Your task to perform on an android device: Open Reddit.com Image 0: 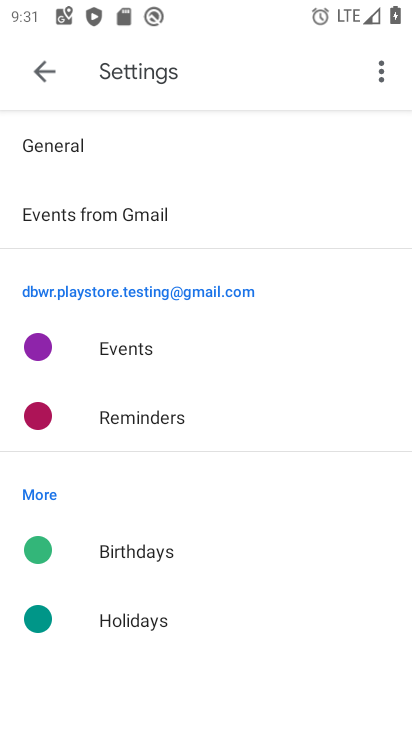
Step 0: press home button
Your task to perform on an android device: Open Reddit.com Image 1: 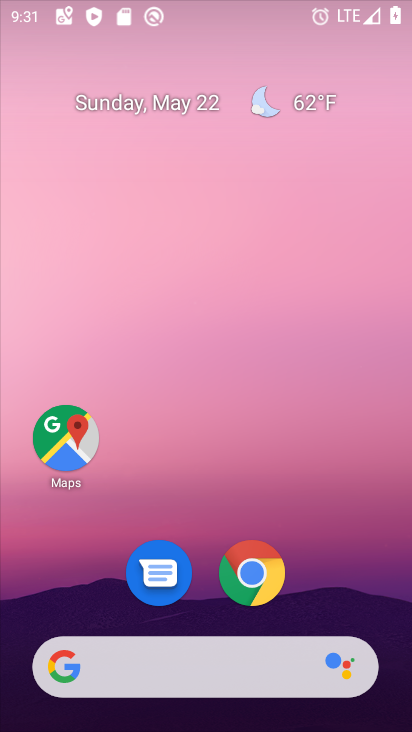
Step 1: drag from (275, 670) to (333, 87)
Your task to perform on an android device: Open Reddit.com Image 2: 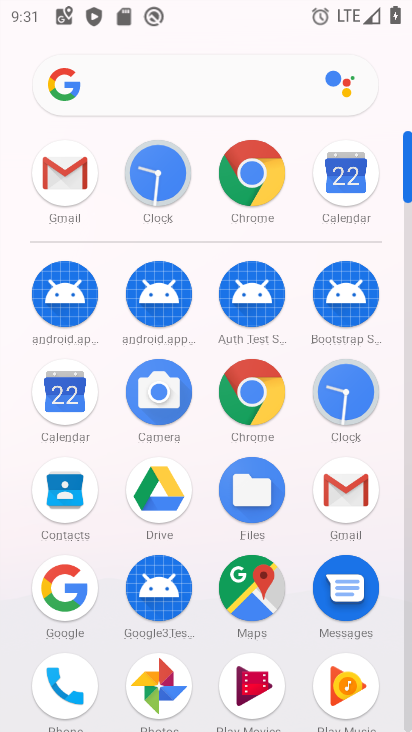
Step 2: click (253, 378)
Your task to perform on an android device: Open Reddit.com Image 3: 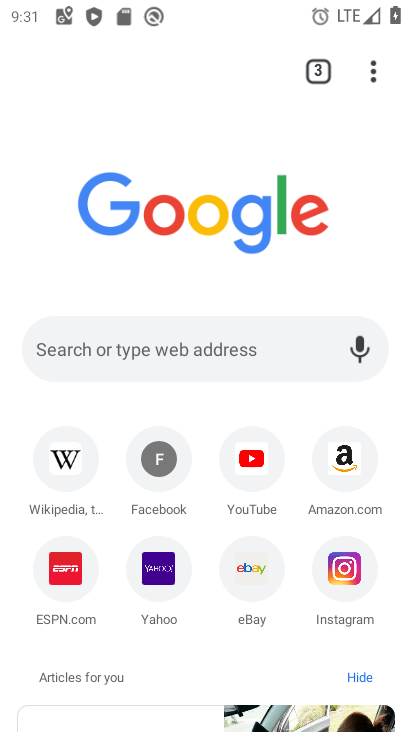
Step 3: click (260, 343)
Your task to perform on an android device: Open Reddit.com Image 4: 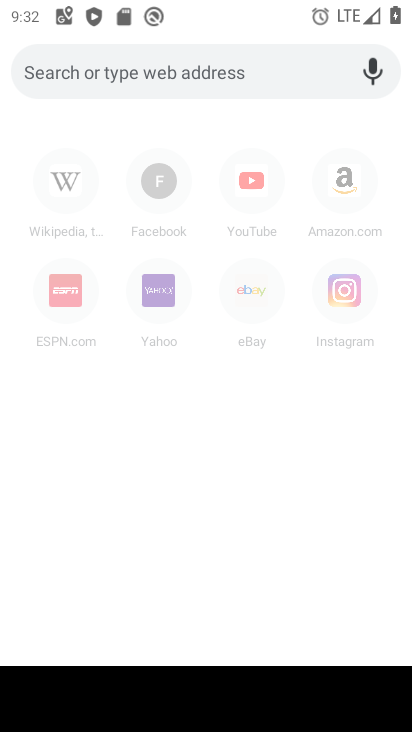
Step 4: type "reddit,com"
Your task to perform on an android device: Open Reddit.com Image 5: 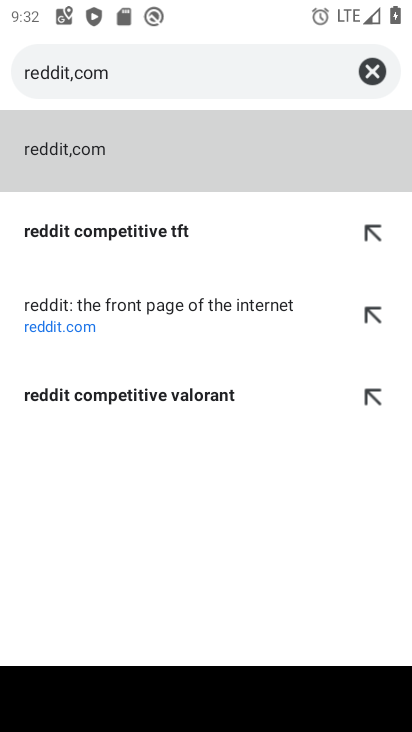
Step 5: click (101, 320)
Your task to perform on an android device: Open Reddit.com Image 6: 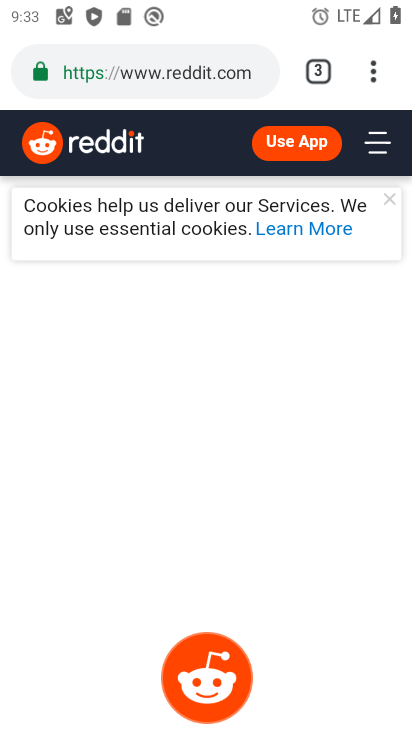
Step 6: task complete